Your task to perform on an android device: Go to Amazon Image 0: 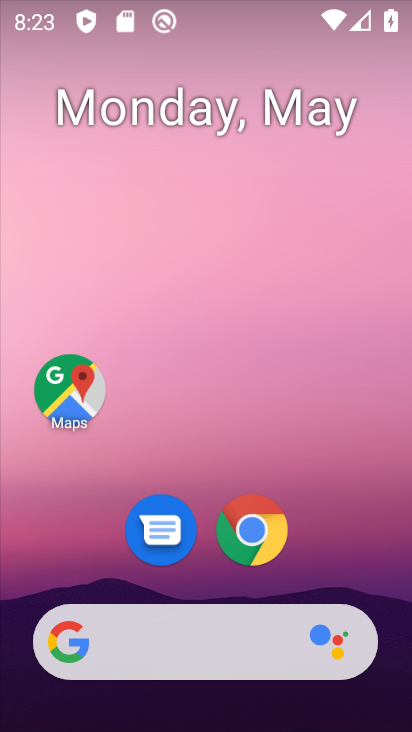
Step 0: click (267, 540)
Your task to perform on an android device: Go to Amazon Image 1: 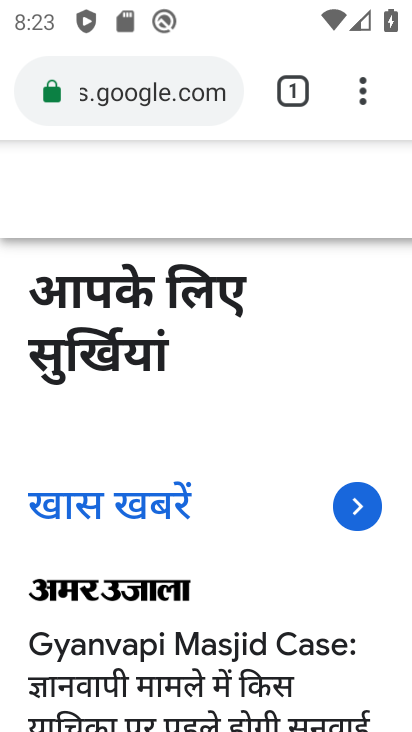
Step 1: click (305, 80)
Your task to perform on an android device: Go to Amazon Image 2: 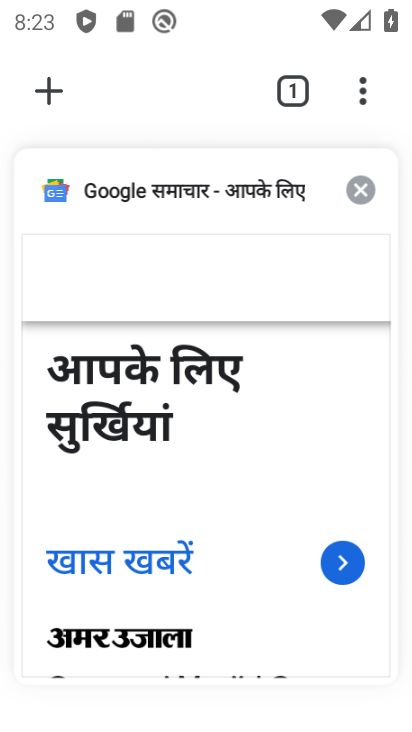
Step 2: click (68, 93)
Your task to perform on an android device: Go to Amazon Image 3: 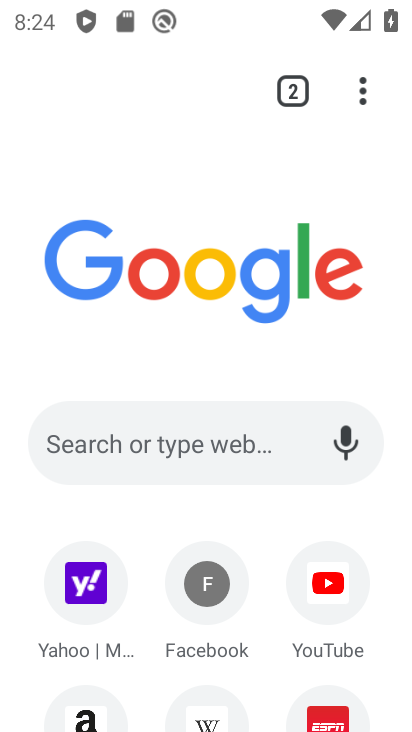
Step 3: click (96, 708)
Your task to perform on an android device: Go to Amazon Image 4: 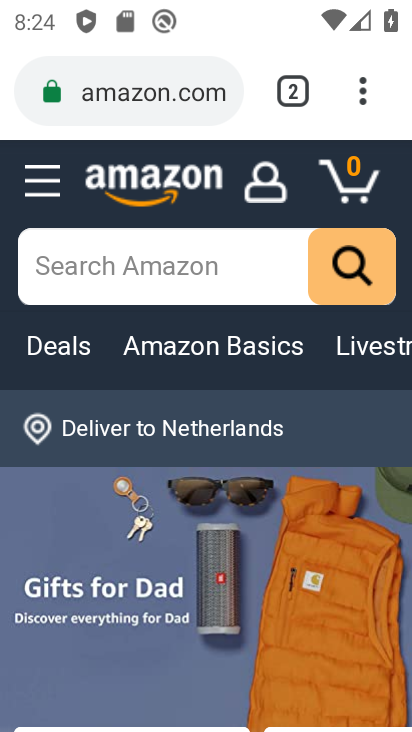
Step 4: task complete